Your task to perform on an android device: Open display settings Image 0: 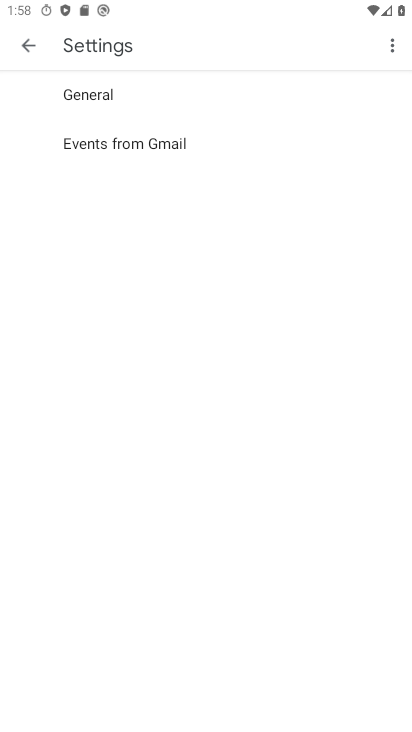
Step 0: press home button
Your task to perform on an android device: Open display settings Image 1: 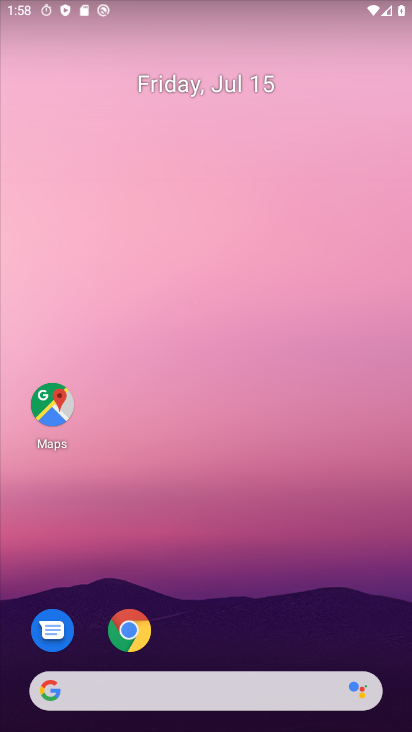
Step 1: drag from (225, 633) to (228, 243)
Your task to perform on an android device: Open display settings Image 2: 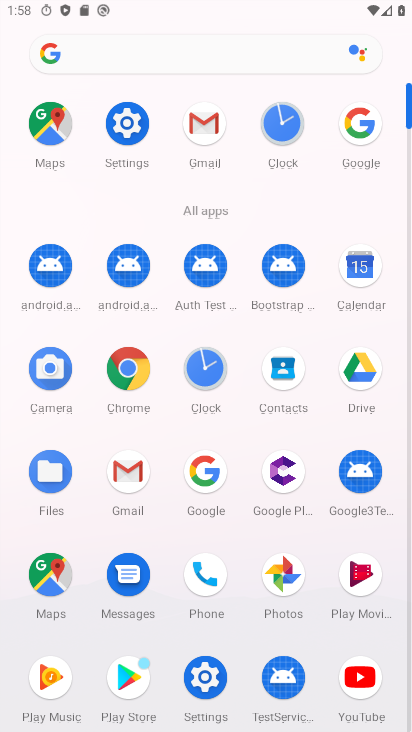
Step 2: click (137, 134)
Your task to perform on an android device: Open display settings Image 3: 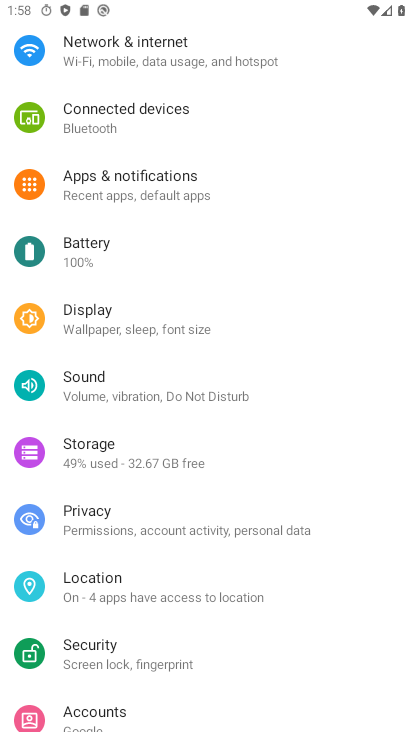
Step 3: click (129, 310)
Your task to perform on an android device: Open display settings Image 4: 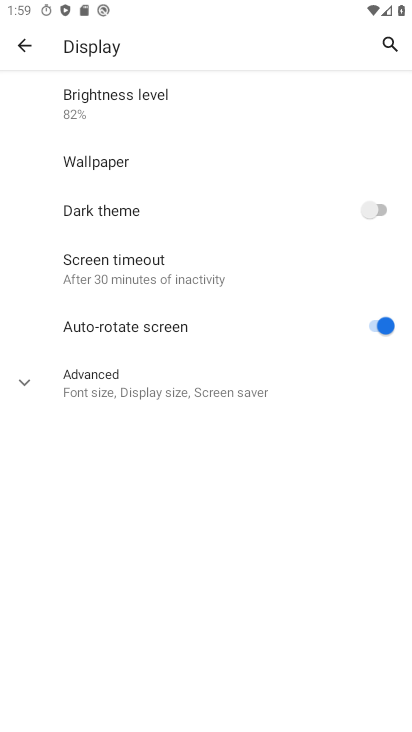
Step 4: task complete